Your task to perform on an android device: stop showing notifications on the lock screen Image 0: 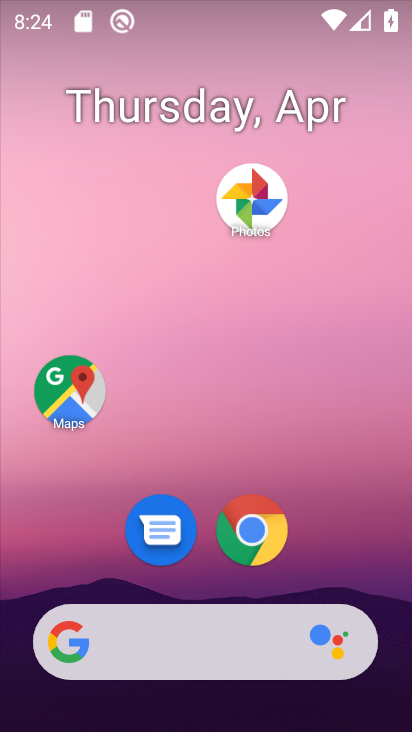
Step 0: drag from (365, 534) to (411, 133)
Your task to perform on an android device: stop showing notifications on the lock screen Image 1: 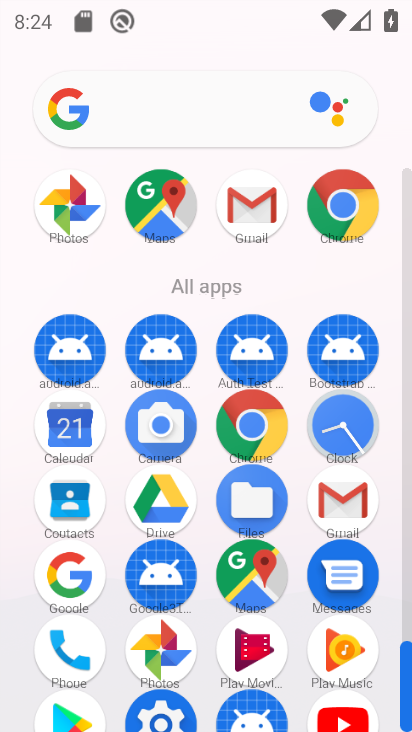
Step 1: click (164, 703)
Your task to perform on an android device: stop showing notifications on the lock screen Image 2: 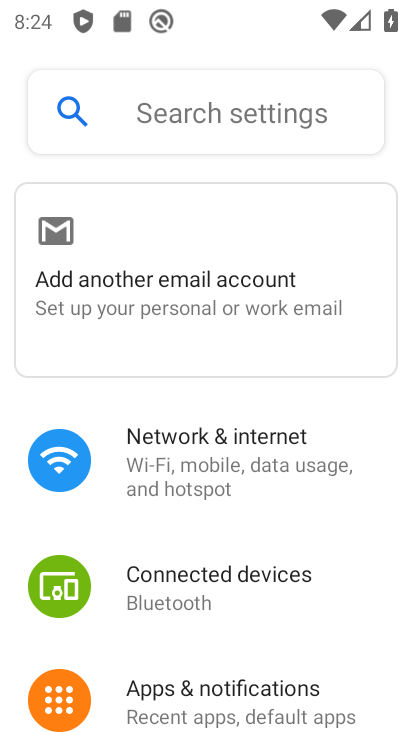
Step 2: drag from (177, 664) to (257, 245)
Your task to perform on an android device: stop showing notifications on the lock screen Image 3: 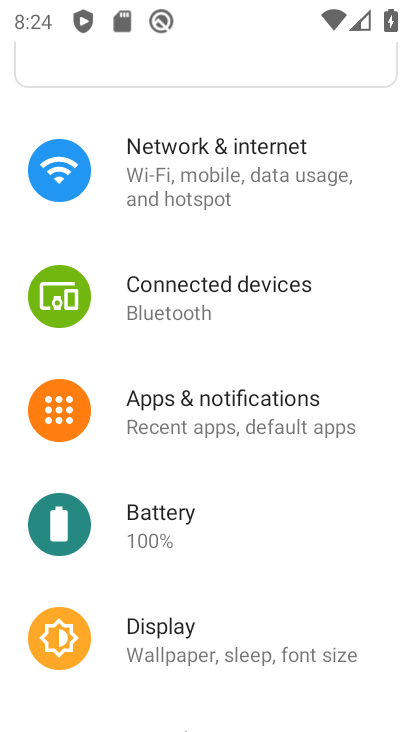
Step 3: drag from (293, 572) to (371, 306)
Your task to perform on an android device: stop showing notifications on the lock screen Image 4: 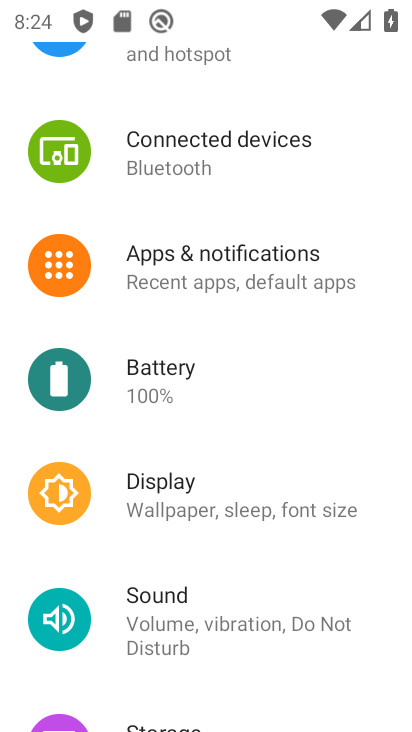
Step 4: drag from (245, 709) to (268, 641)
Your task to perform on an android device: stop showing notifications on the lock screen Image 5: 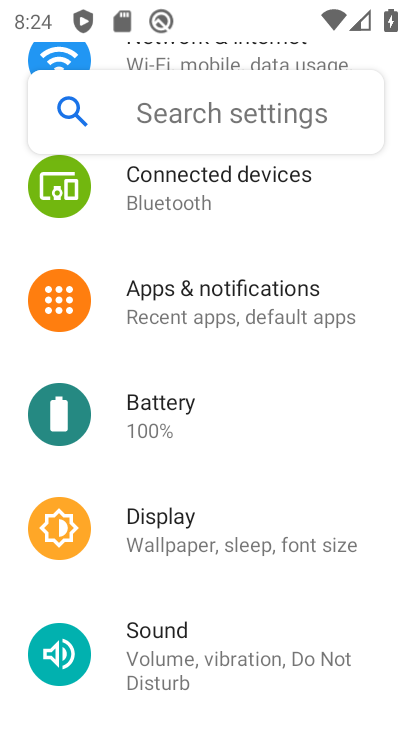
Step 5: click (258, 294)
Your task to perform on an android device: stop showing notifications on the lock screen Image 6: 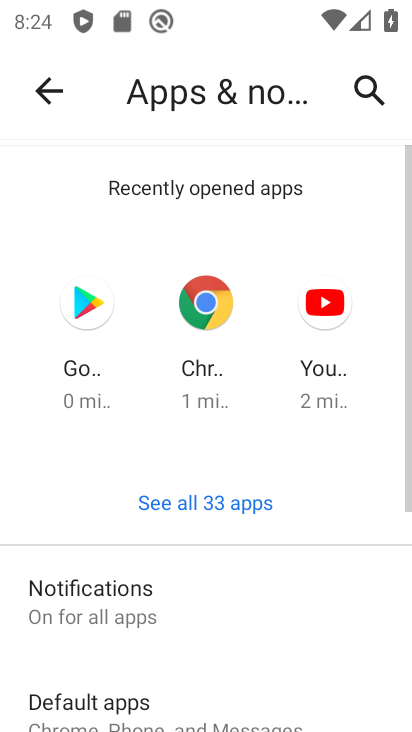
Step 6: click (116, 613)
Your task to perform on an android device: stop showing notifications on the lock screen Image 7: 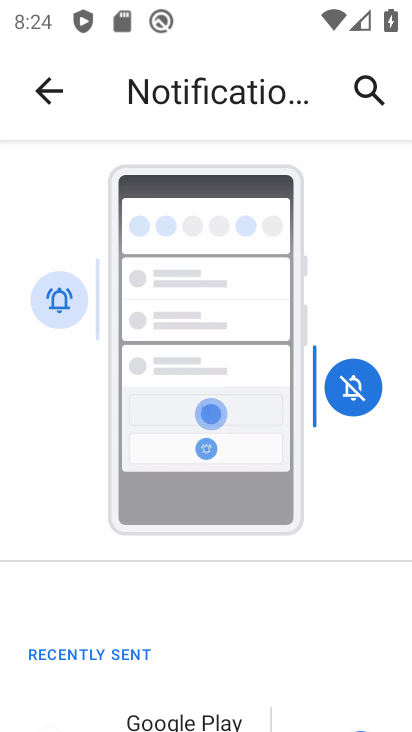
Step 7: drag from (242, 575) to (308, 305)
Your task to perform on an android device: stop showing notifications on the lock screen Image 8: 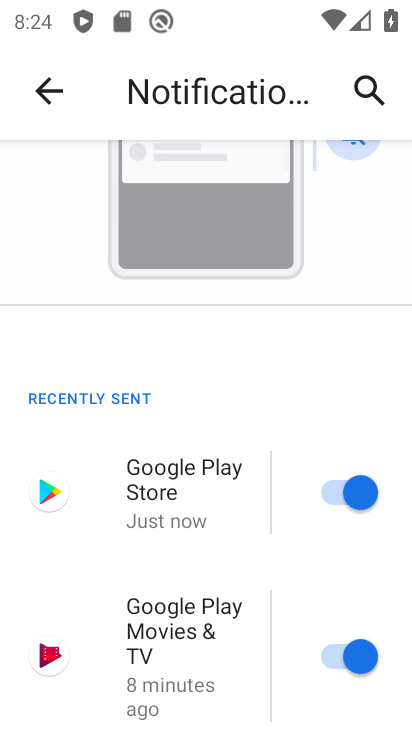
Step 8: drag from (197, 671) to (277, 346)
Your task to perform on an android device: stop showing notifications on the lock screen Image 9: 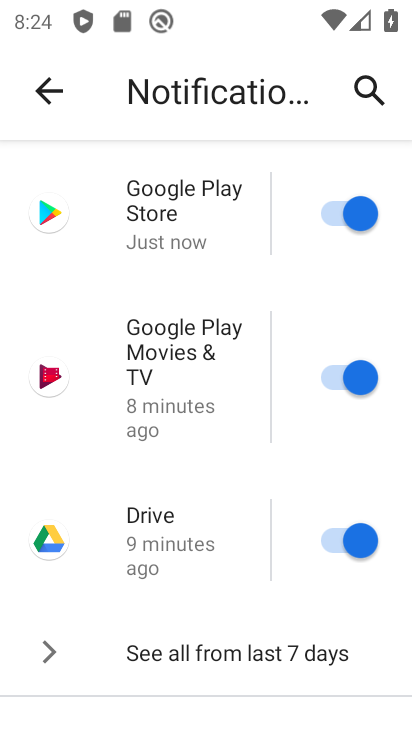
Step 9: drag from (236, 703) to (345, 432)
Your task to perform on an android device: stop showing notifications on the lock screen Image 10: 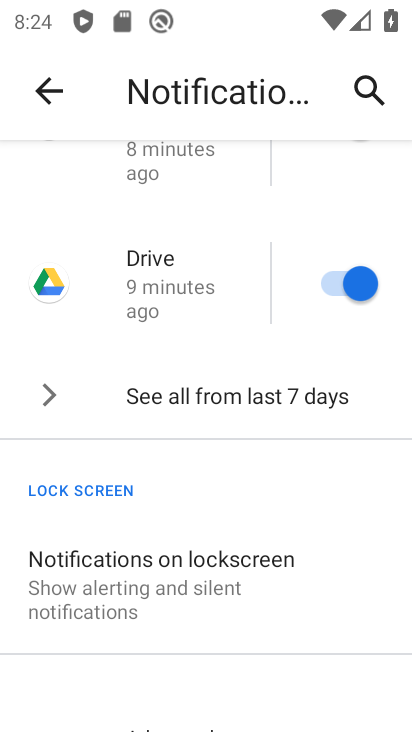
Step 10: click (229, 575)
Your task to perform on an android device: stop showing notifications on the lock screen Image 11: 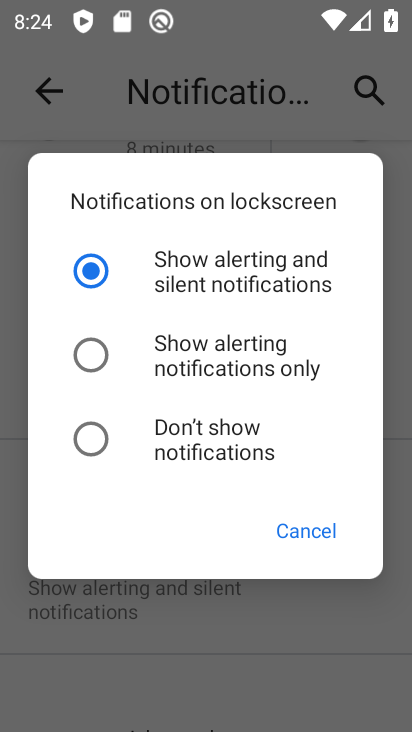
Step 11: click (210, 450)
Your task to perform on an android device: stop showing notifications on the lock screen Image 12: 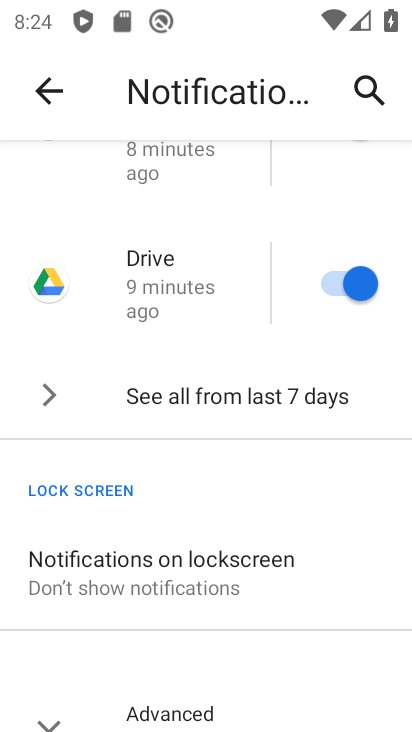
Step 12: task complete